Your task to perform on an android device: Open Google Chrome and click the shortcut for Amazon.com Image 0: 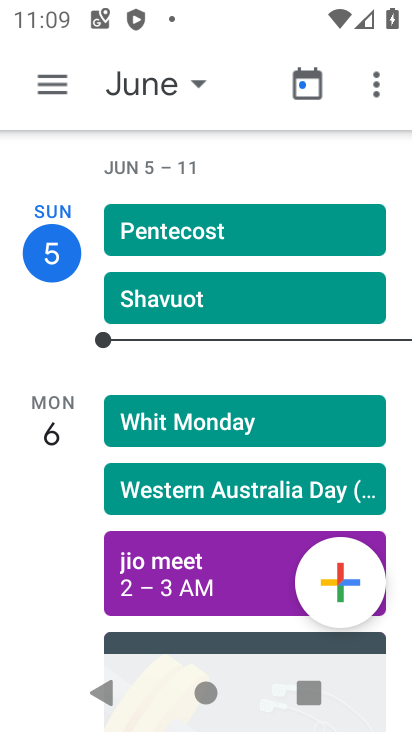
Step 0: press home button
Your task to perform on an android device: Open Google Chrome and click the shortcut for Amazon.com Image 1: 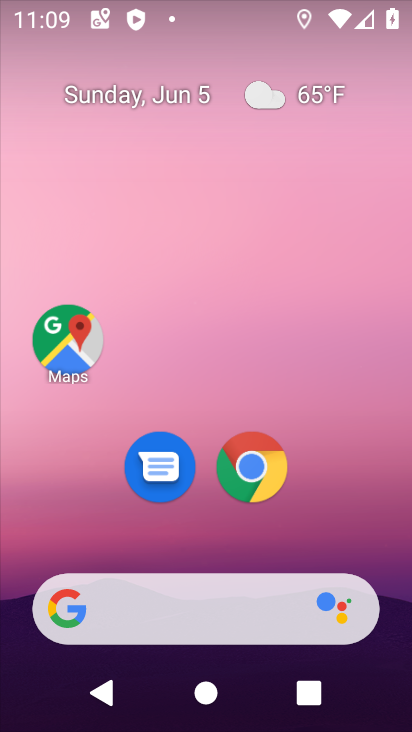
Step 1: click (246, 493)
Your task to perform on an android device: Open Google Chrome and click the shortcut for Amazon.com Image 2: 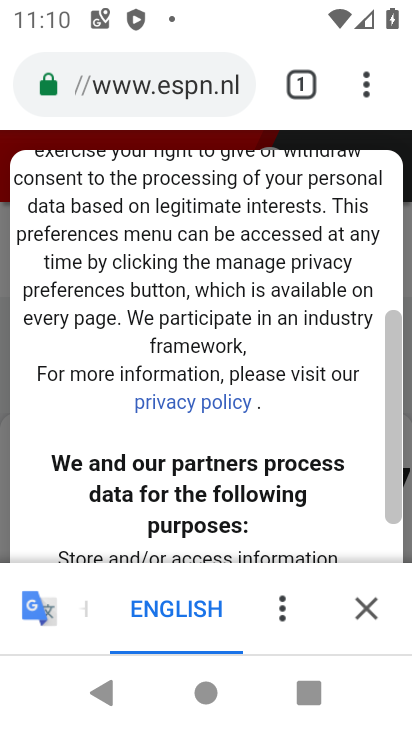
Step 2: drag from (367, 80) to (274, 147)
Your task to perform on an android device: Open Google Chrome and click the shortcut for Amazon.com Image 3: 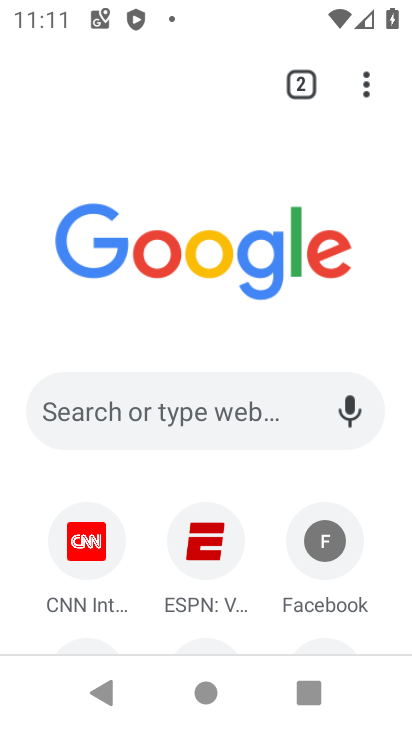
Step 3: drag from (222, 421) to (204, 161)
Your task to perform on an android device: Open Google Chrome and click the shortcut for Amazon.com Image 4: 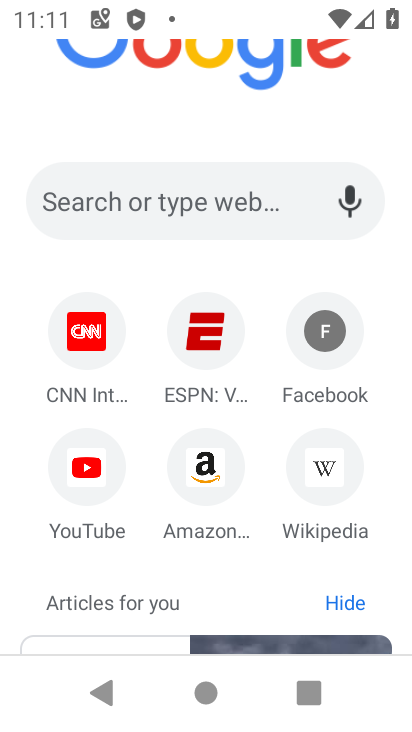
Step 4: click (194, 446)
Your task to perform on an android device: Open Google Chrome and click the shortcut for Amazon.com Image 5: 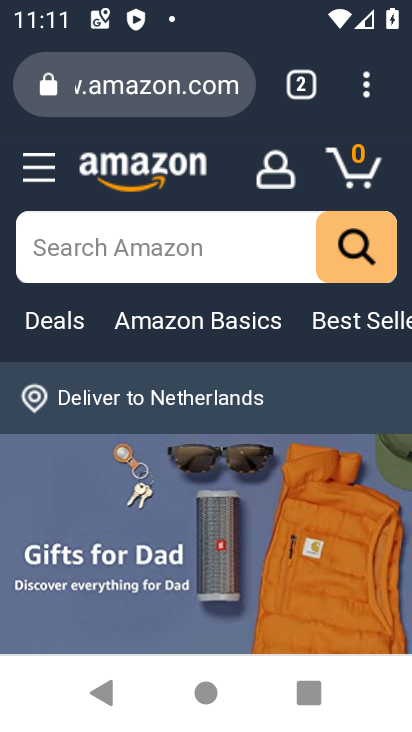
Step 5: task complete